Your task to perform on an android device: Open ESPN.com Image 0: 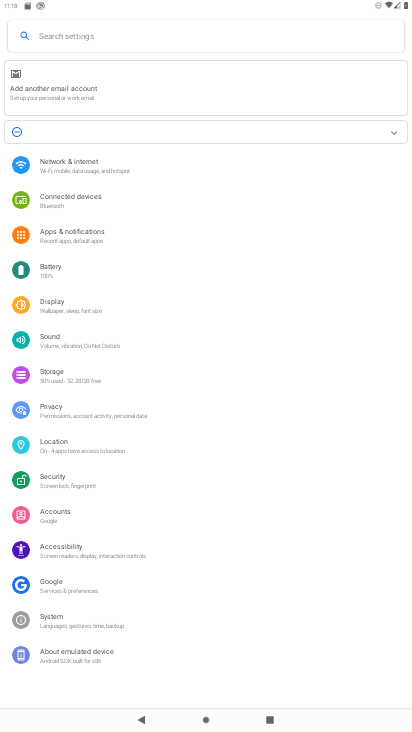
Step 0: press home button
Your task to perform on an android device: Open ESPN.com Image 1: 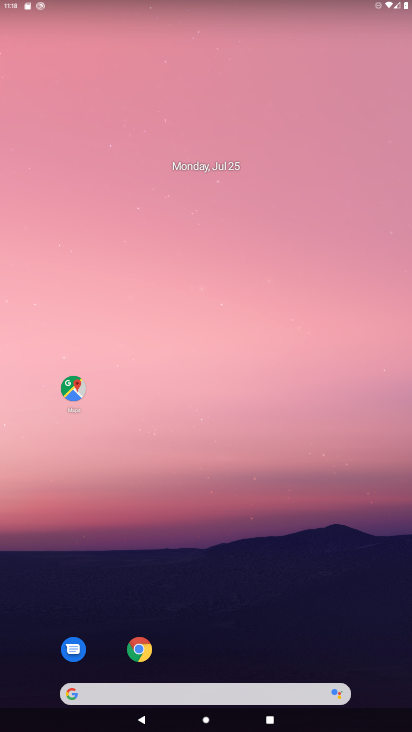
Step 1: click (141, 652)
Your task to perform on an android device: Open ESPN.com Image 2: 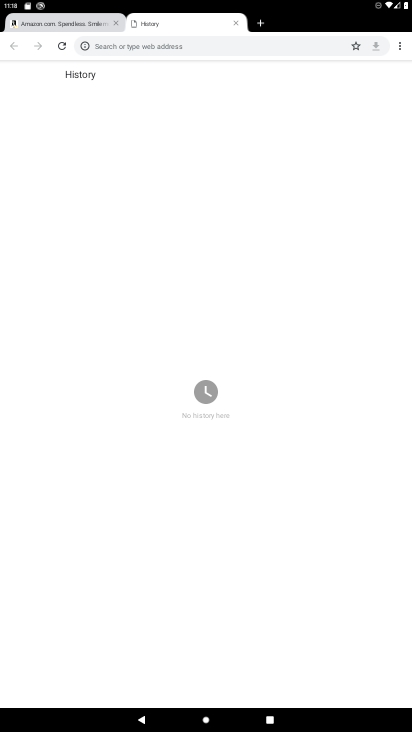
Step 2: click (132, 48)
Your task to perform on an android device: Open ESPN.com Image 3: 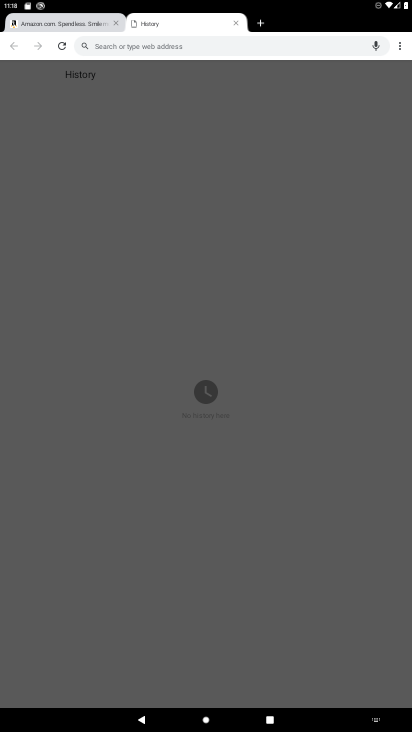
Step 3: type "ESPN.com"
Your task to perform on an android device: Open ESPN.com Image 4: 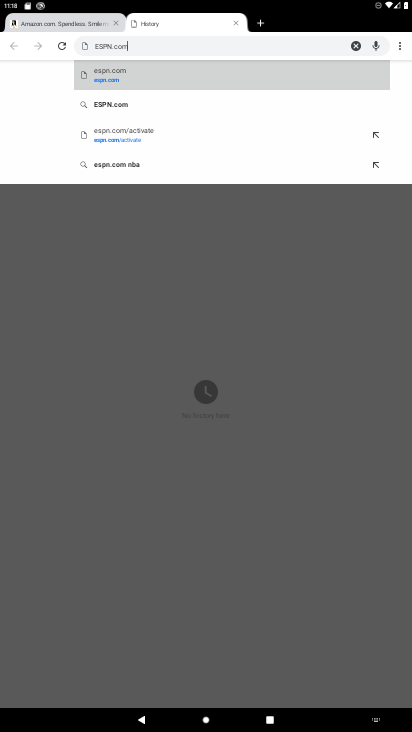
Step 4: click (109, 64)
Your task to perform on an android device: Open ESPN.com Image 5: 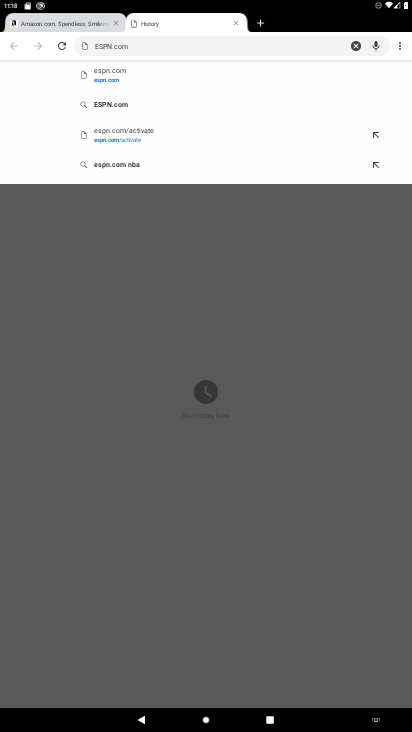
Step 5: click (111, 76)
Your task to perform on an android device: Open ESPN.com Image 6: 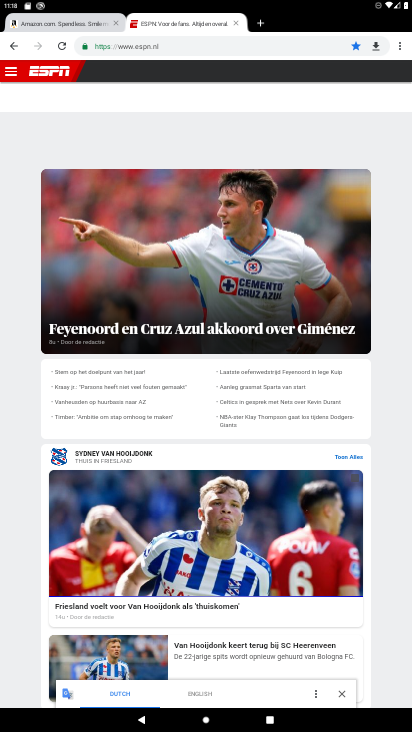
Step 6: task complete